Your task to perform on an android device: turn off sleep mode Image 0: 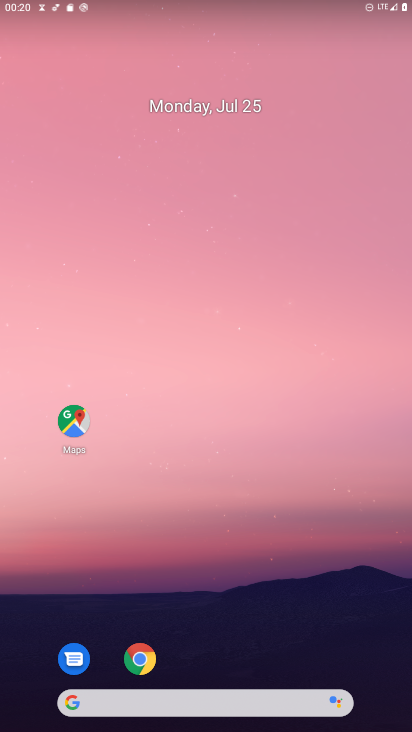
Step 0: drag from (191, 617) to (198, 313)
Your task to perform on an android device: turn off sleep mode Image 1: 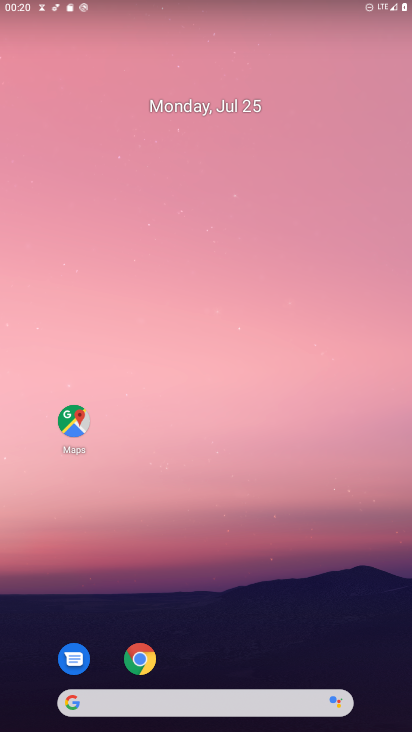
Step 1: drag from (253, 710) to (288, 192)
Your task to perform on an android device: turn off sleep mode Image 2: 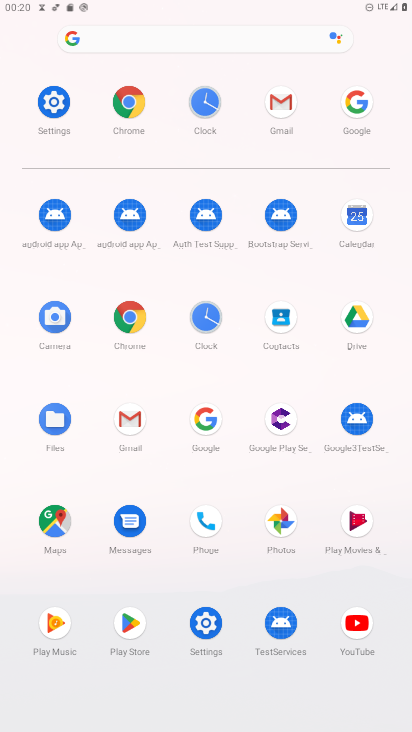
Step 2: click (45, 84)
Your task to perform on an android device: turn off sleep mode Image 3: 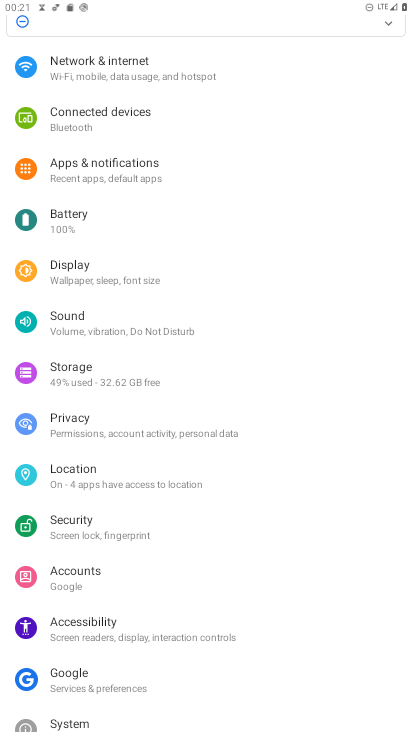
Step 3: task complete